Your task to perform on an android device: Search for hotels in Zurich Image 0: 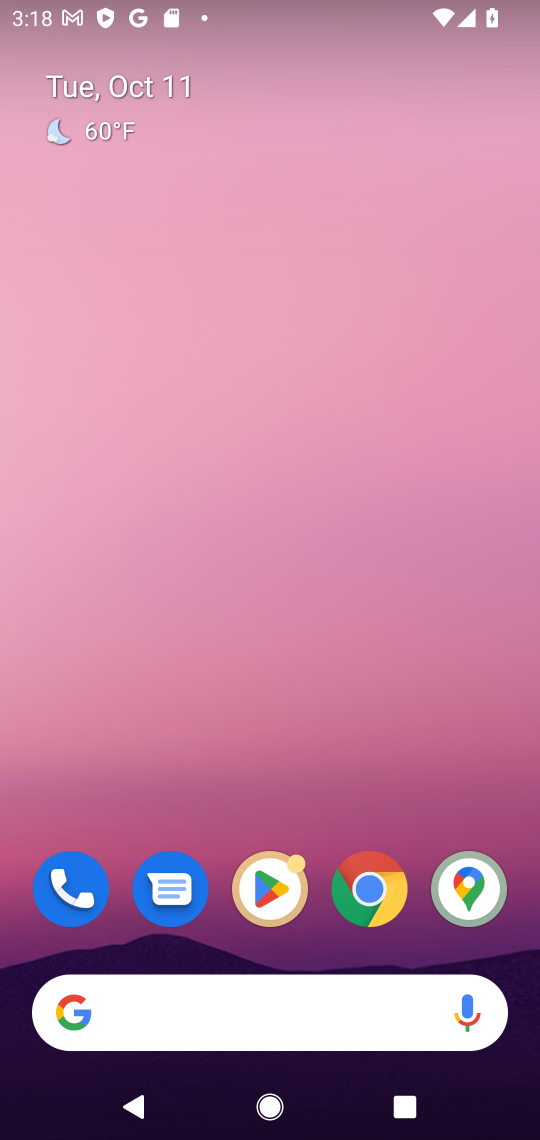
Step 0: drag from (200, 995) to (173, 531)
Your task to perform on an android device: Search for hotels in Zurich Image 1: 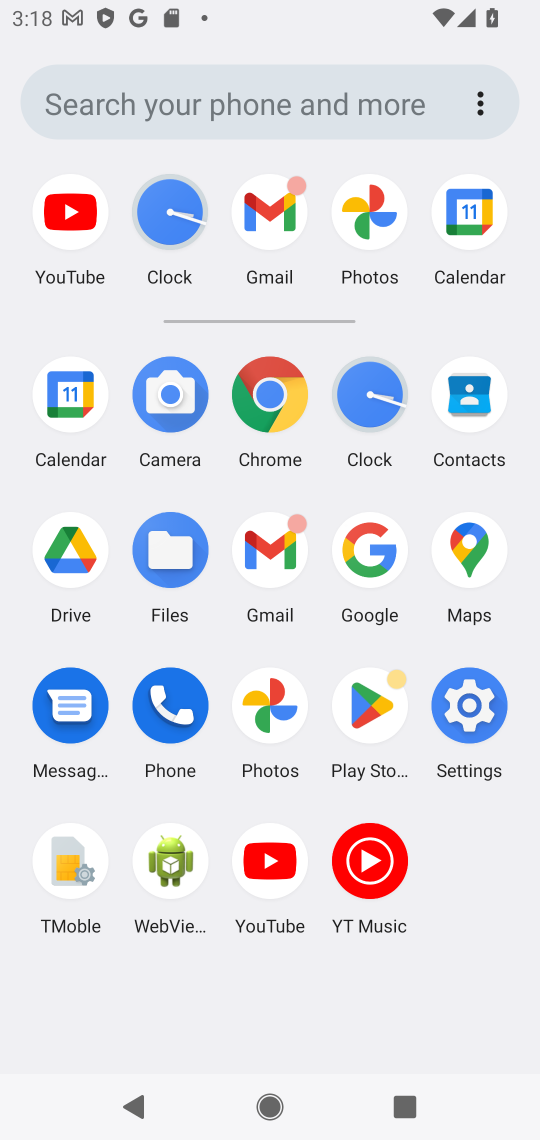
Step 1: click (370, 551)
Your task to perform on an android device: Search for hotels in Zurich Image 2: 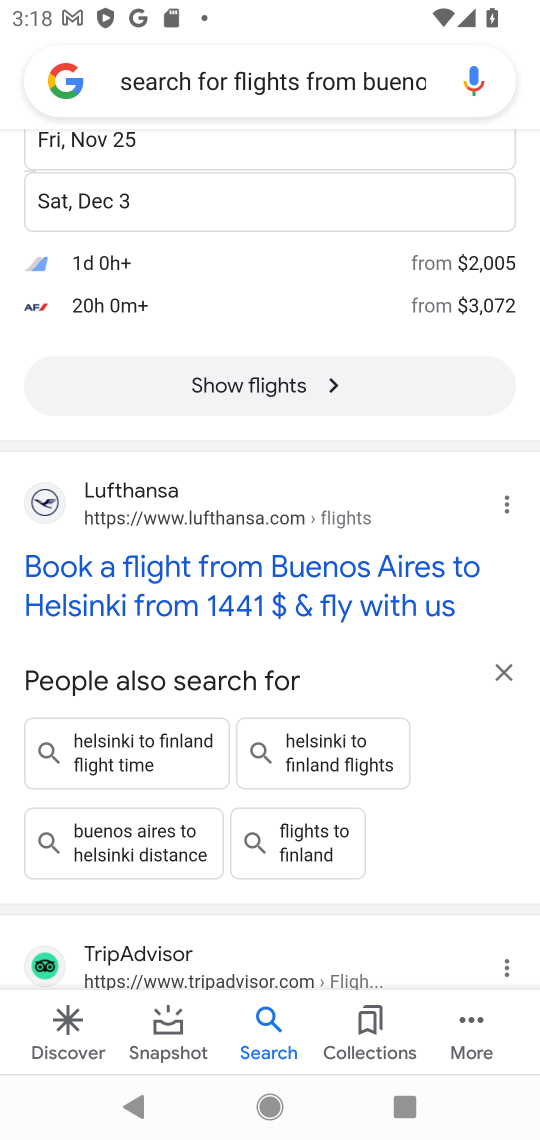
Step 2: click (306, 73)
Your task to perform on an android device: Search for hotels in Zurich Image 3: 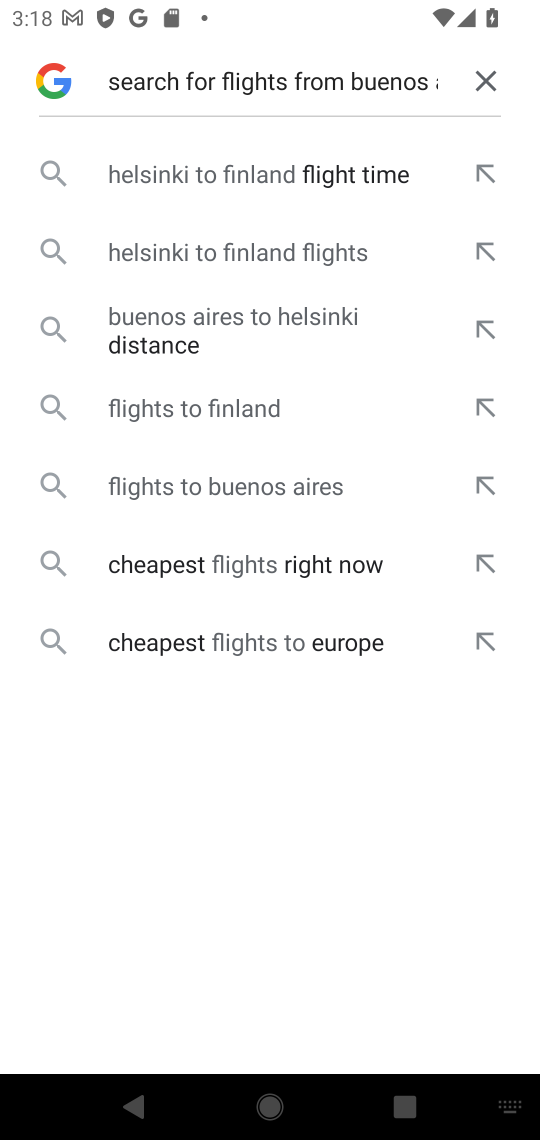
Step 3: click (494, 91)
Your task to perform on an android device: Search for hotels in Zurich Image 4: 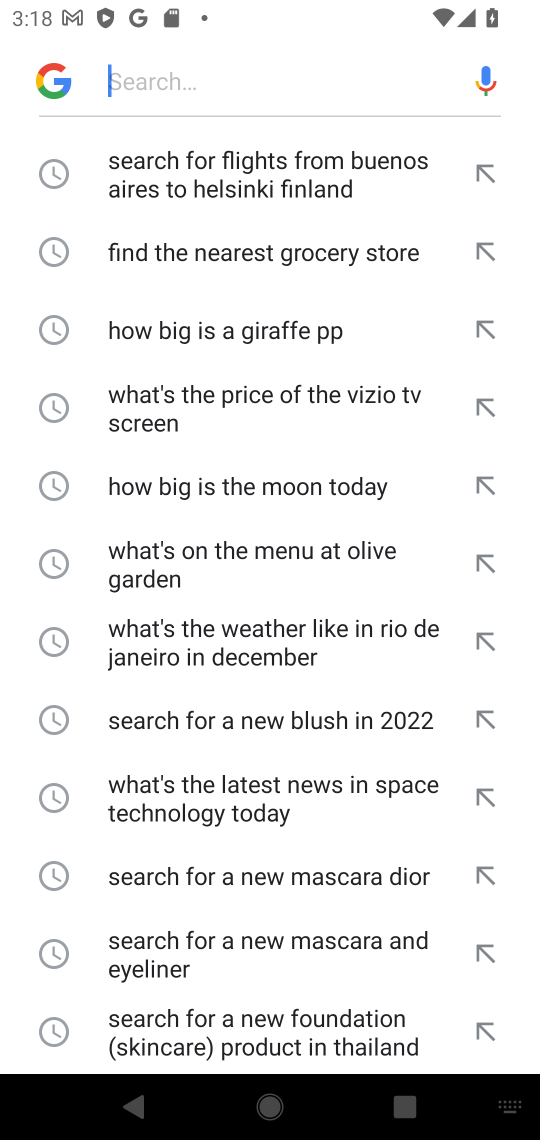
Step 4: click (191, 56)
Your task to perform on an android device: Search for hotels in Zurich Image 5: 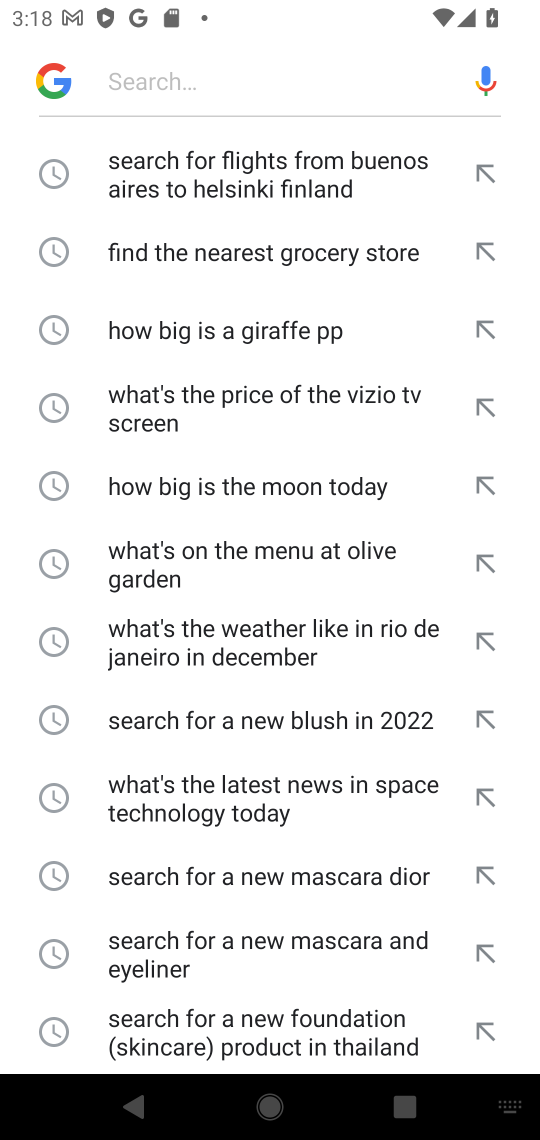
Step 5: type "Search for hotels in Zurich "
Your task to perform on an android device: Search for hotels in Zurich Image 6: 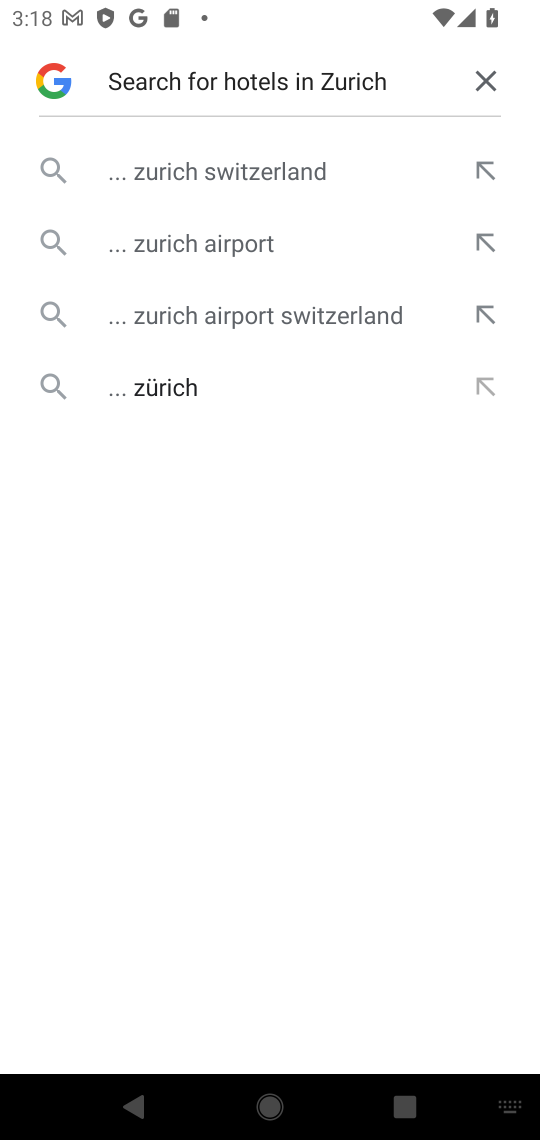
Step 6: click (199, 165)
Your task to perform on an android device: Search for hotels in Zurich Image 7: 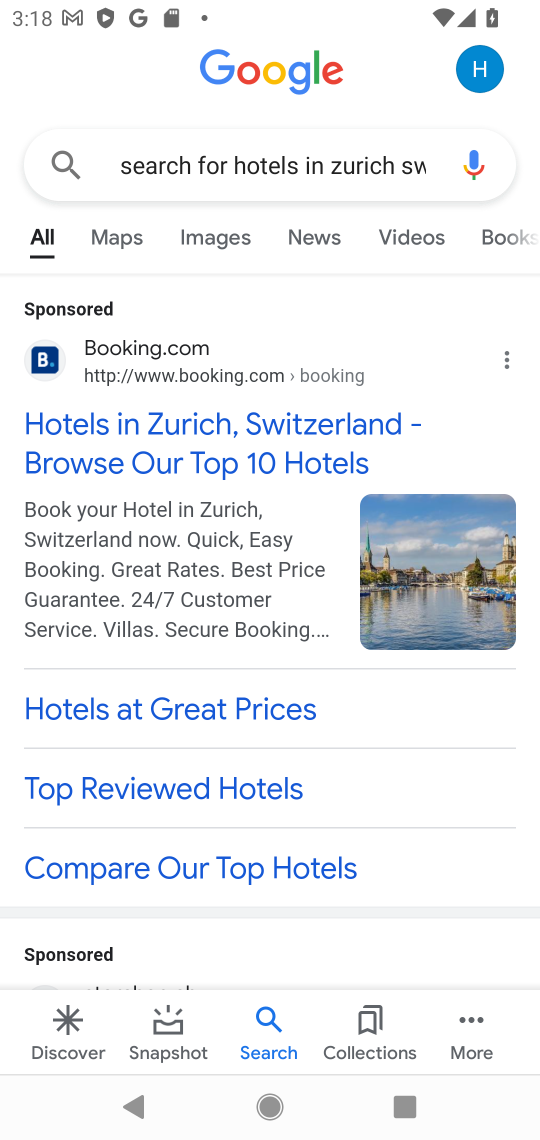
Step 7: click (289, 413)
Your task to perform on an android device: Search for hotels in Zurich Image 8: 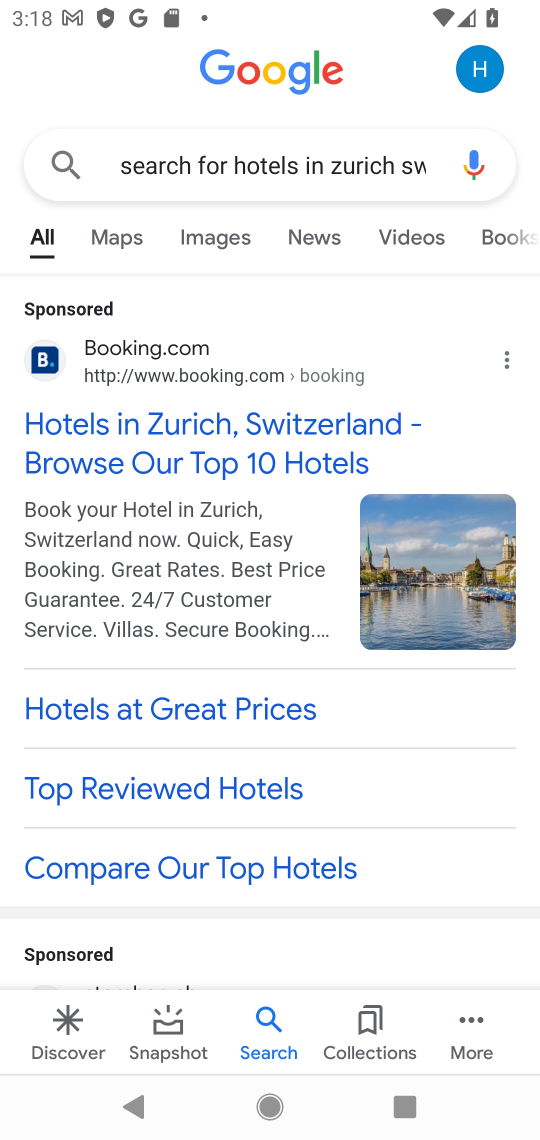
Step 8: click (108, 448)
Your task to perform on an android device: Search for hotels in Zurich Image 9: 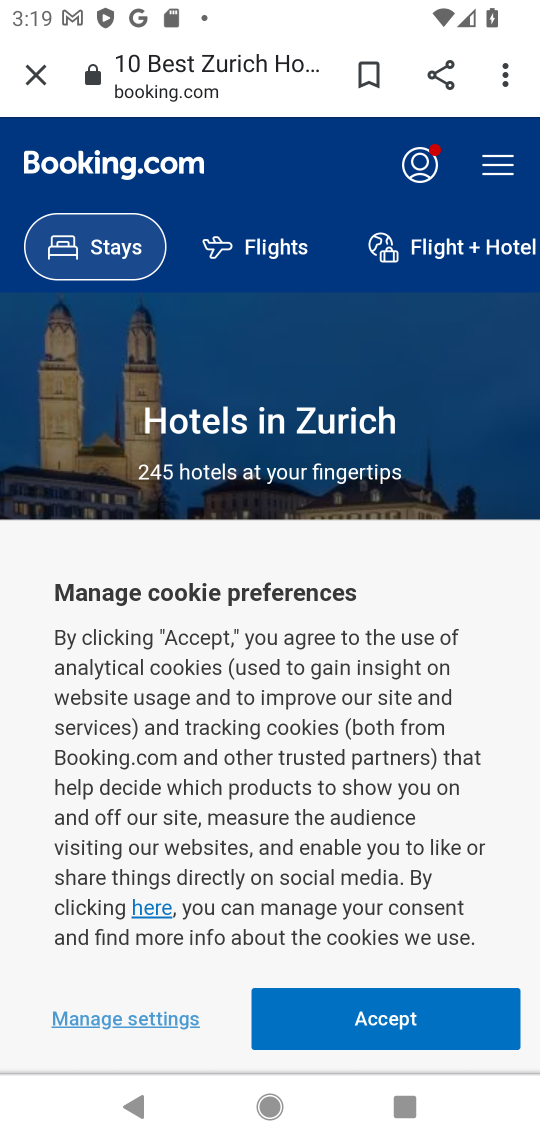
Step 9: click (300, 1005)
Your task to perform on an android device: Search for hotels in Zurich Image 10: 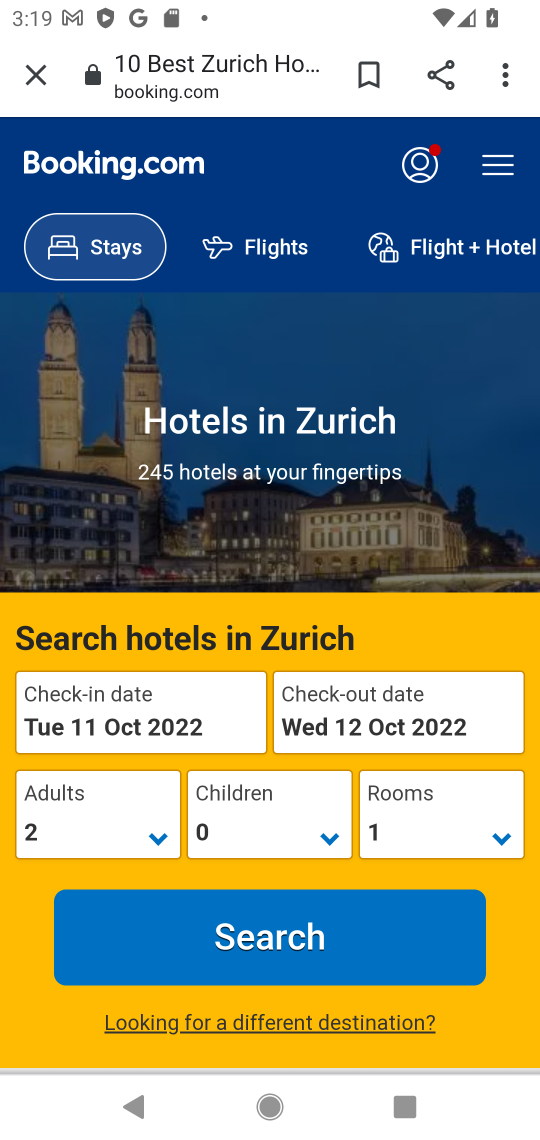
Step 10: click (282, 956)
Your task to perform on an android device: Search for hotels in Zurich Image 11: 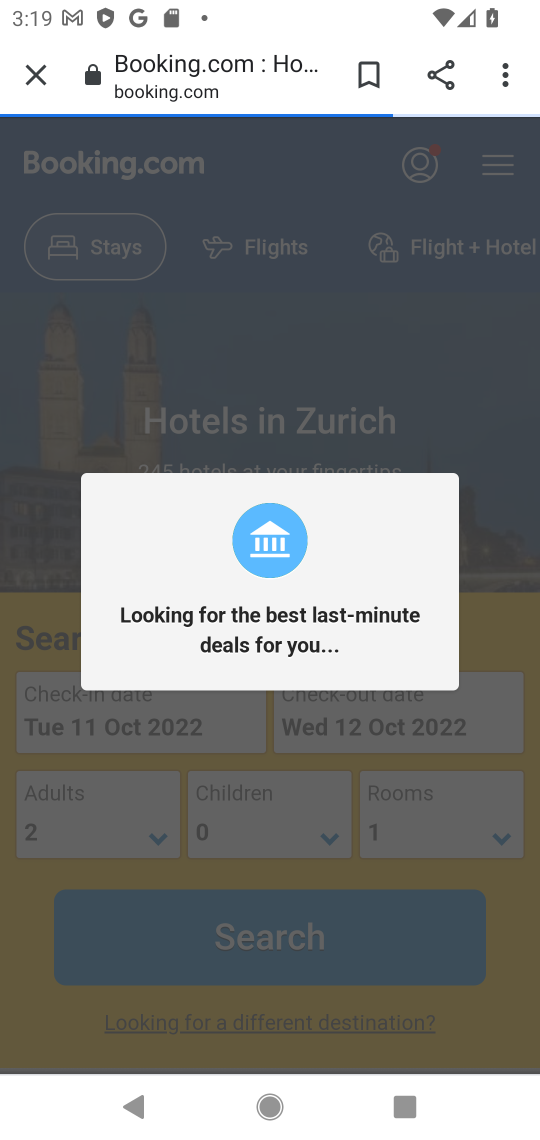
Step 11: click (282, 953)
Your task to perform on an android device: Search for hotels in Zurich Image 12: 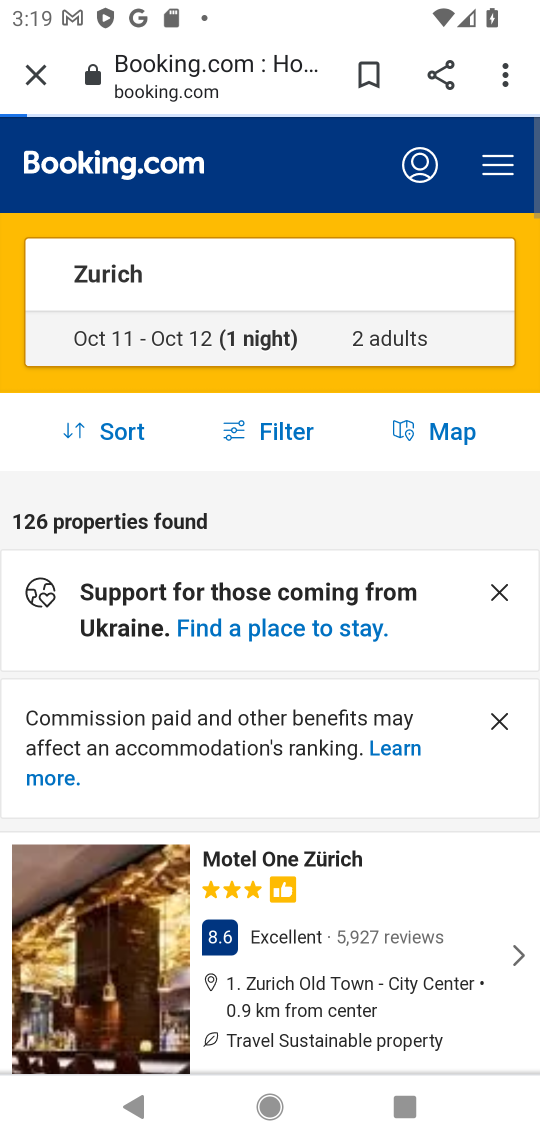
Step 12: click (282, 953)
Your task to perform on an android device: Search for hotels in Zurich Image 13: 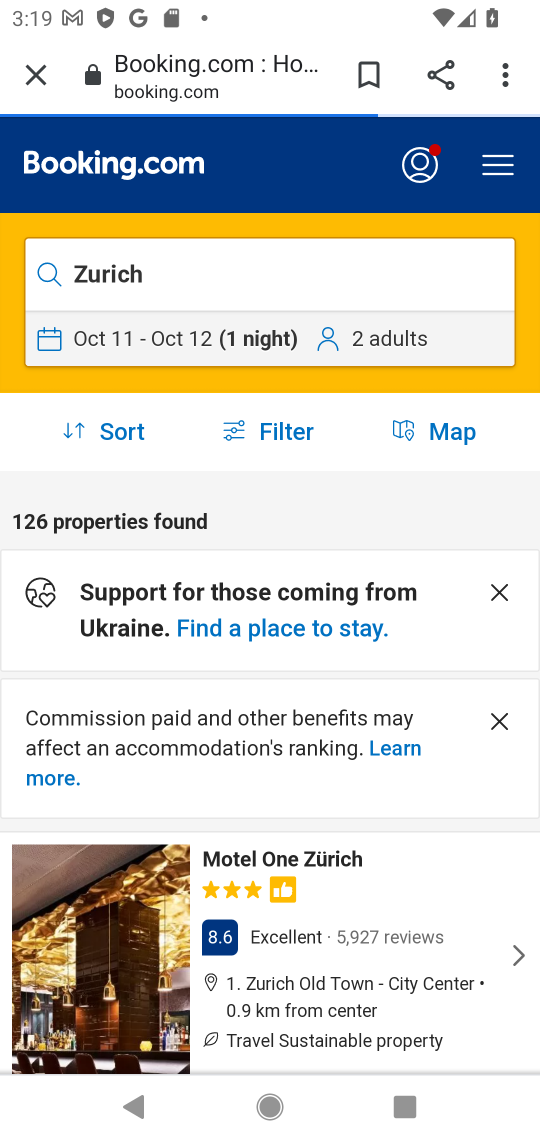
Step 13: drag from (312, 589) to (324, 441)
Your task to perform on an android device: Search for hotels in Zurich Image 14: 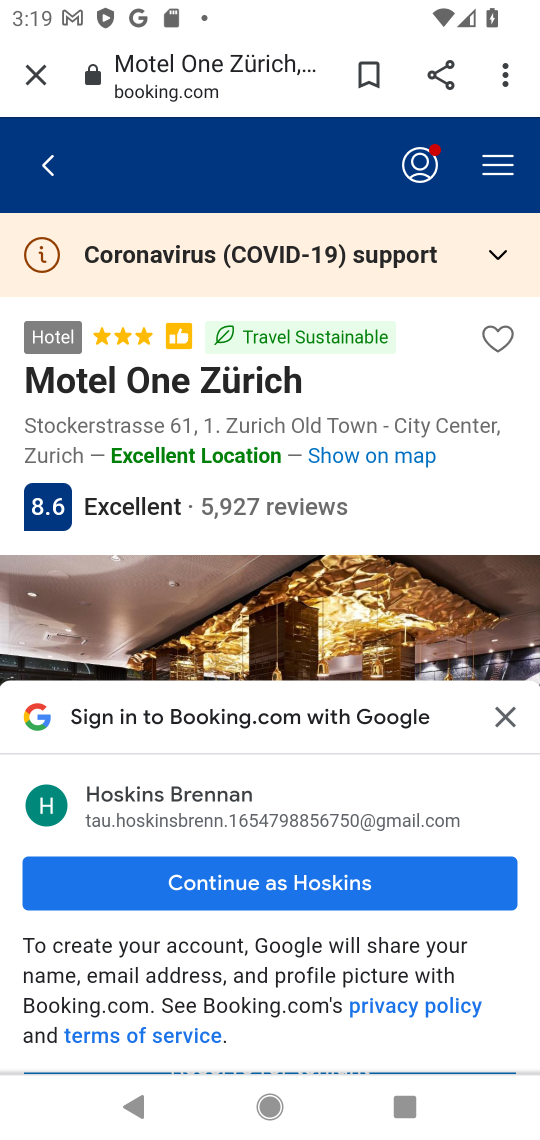
Step 14: click (482, 710)
Your task to perform on an android device: Search for hotels in Zurich Image 15: 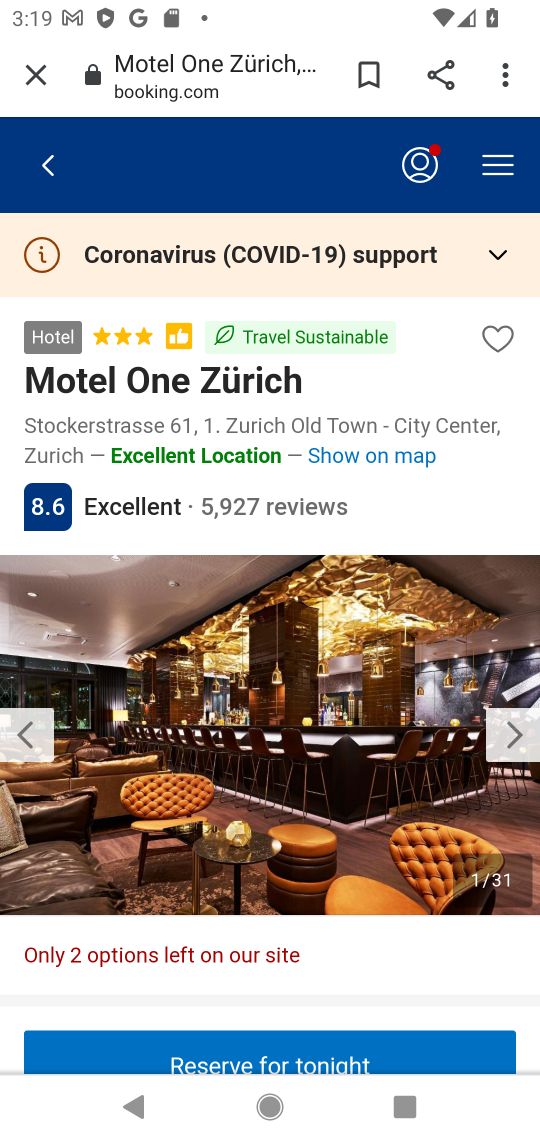
Step 15: task complete